Your task to perform on an android device: turn pop-ups off in chrome Image 0: 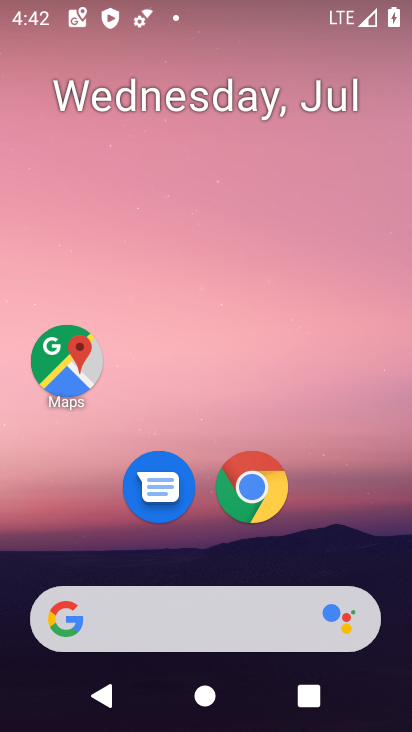
Step 0: click (249, 490)
Your task to perform on an android device: turn pop-ups off in chrome Image 1: 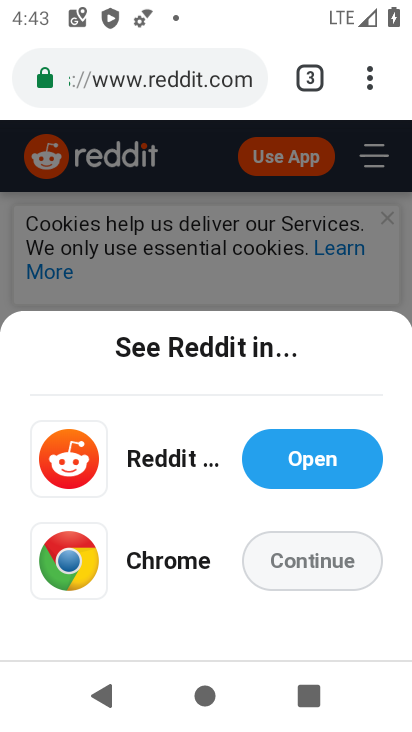
Step 1: drag from (370, 75) to (130, 554)
Your task to perform on an android device: turn pop-ups off in chrome Image 2: 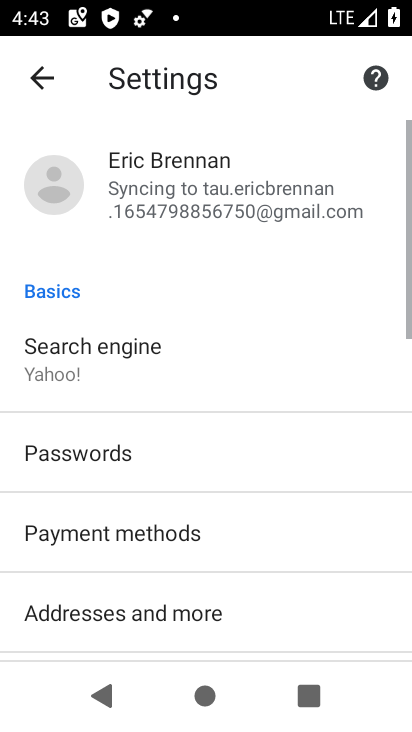
Step 2: drag from (107, 564) to (267, 138)
Your task to perform on an android device: turn pop-ups off in chrome Image 3: 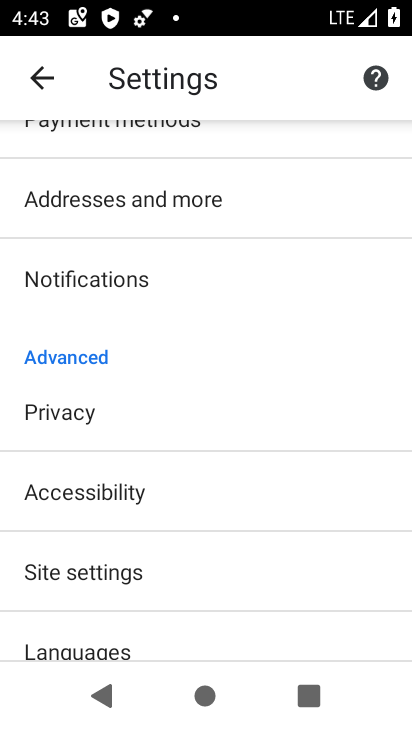
Step 3: click (100, 563)
Your task to perform on an android device: turn pop-ups off in chrome Image 4: 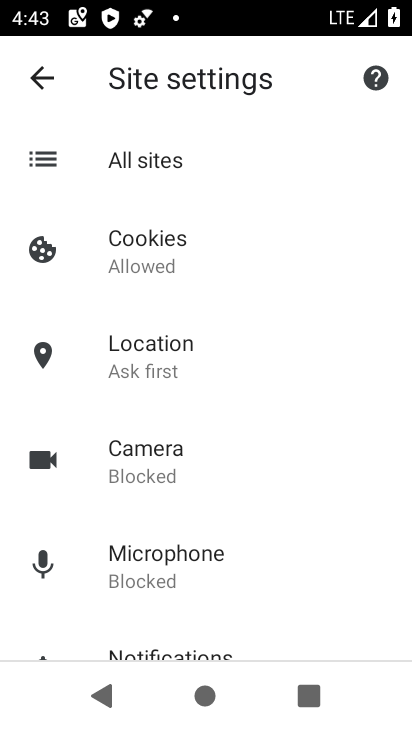
Step 4: drag from (144, 551) to (200, 63)
Your task to perform on an android device: turn pop-ups off in chrome Image 5: 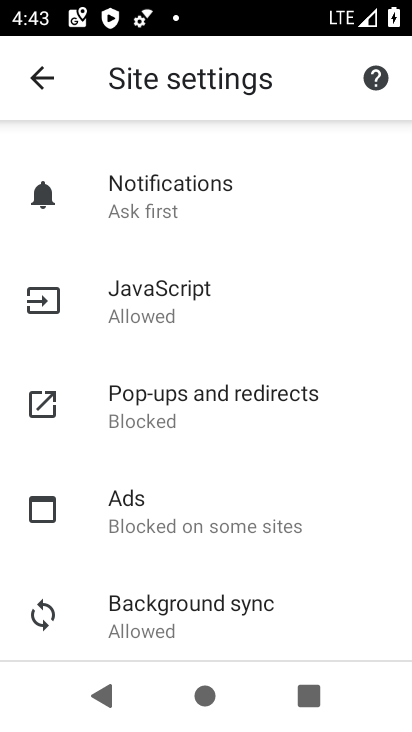
Step 5: click (202, 398)
Your task to perform on an android device: turn pop-ups off in chrome Image 6: 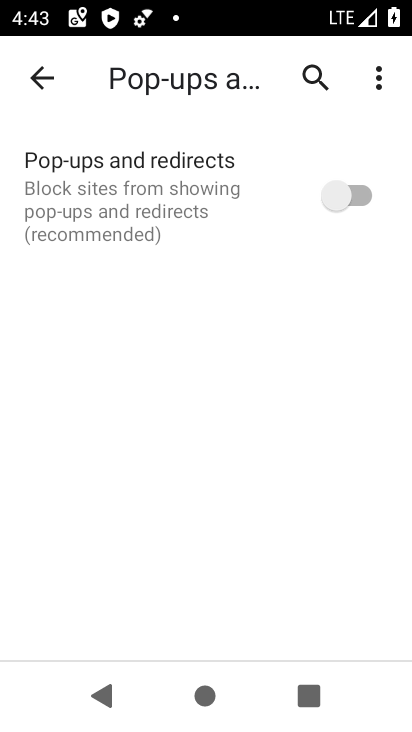
Step 6: task complete